Your task to perform on an android device: change the clock style Image 0: 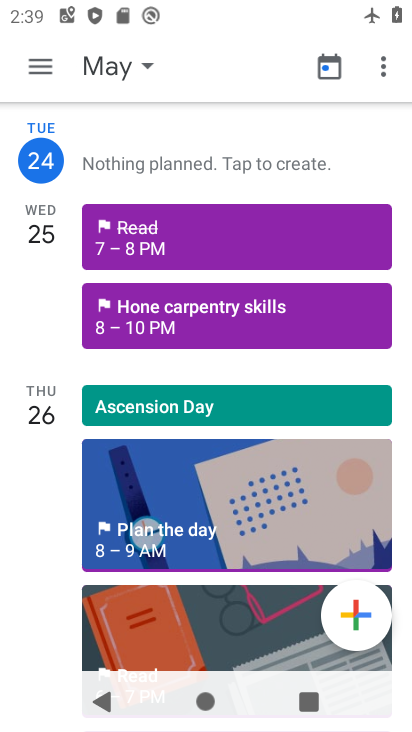
Step 0: press home button
Your task to perform on an android device: change the clock style Image 1: 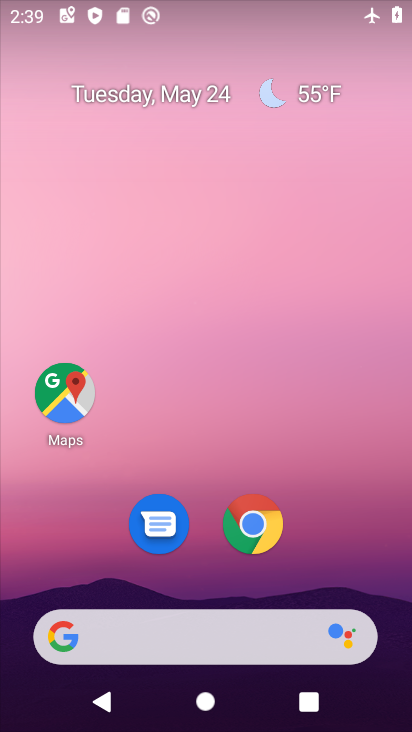
Step 1: drag from (234, 423) to (261, 65)
Your task to perform on an android device: change the clock style Image 2: 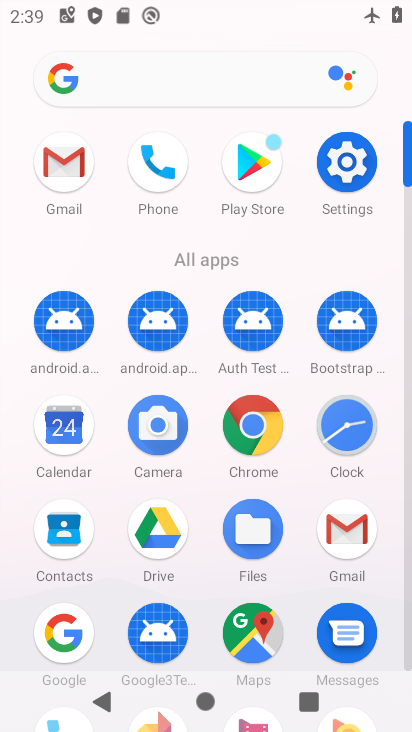
Step 2: click (339, 424)
Your task to perform on an android device: change the clock style Image 3: 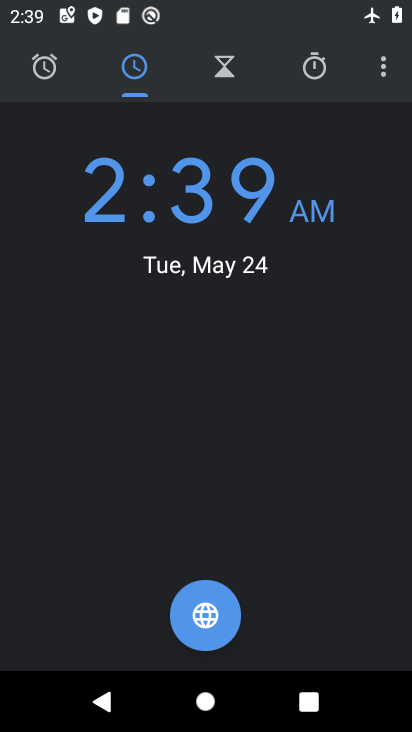
Step 3: click (378, 74)
Your task to perform on an android device: change the clock style Image 4: 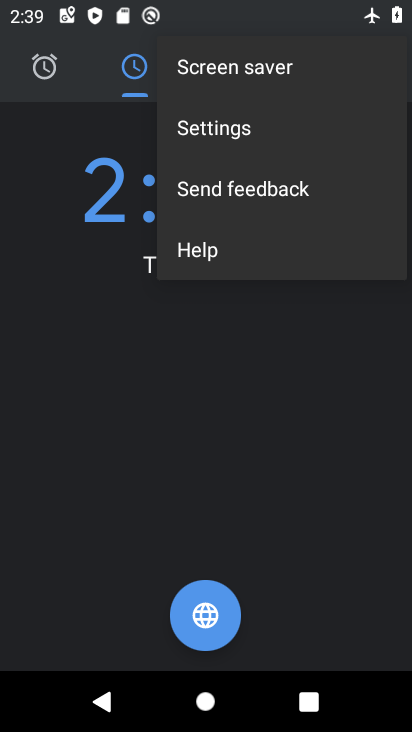
Step 4: click (300, 131)
Your task to perform on an android device: change the clock style Image 5: 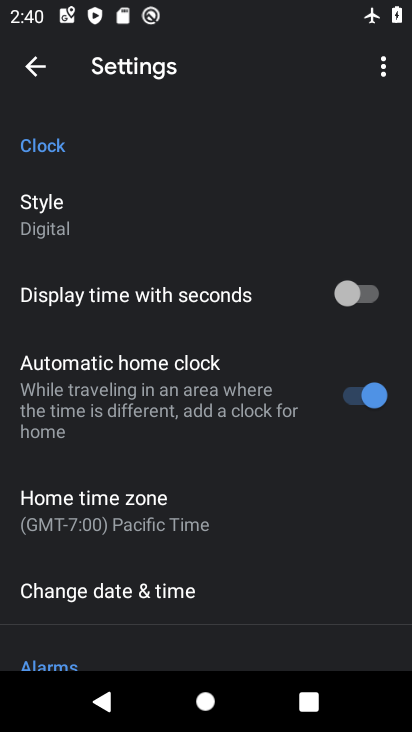
Step 5: click (83, 212)
Your task to perform on an android device: change the clock style Image 6: 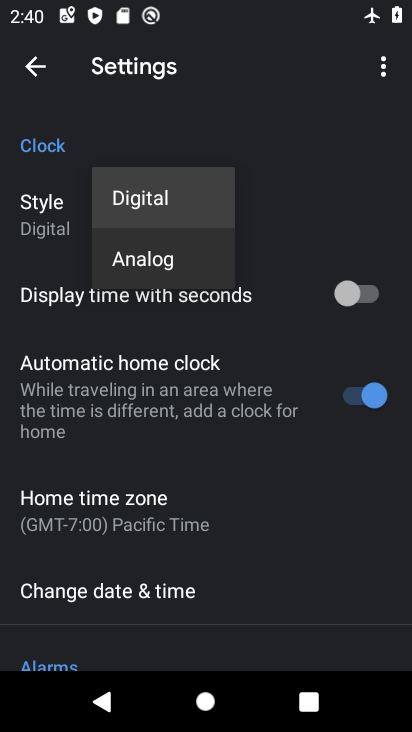
Step 6: click (118, 255)
Your task to perform on an android device: change the clock style Image 7: 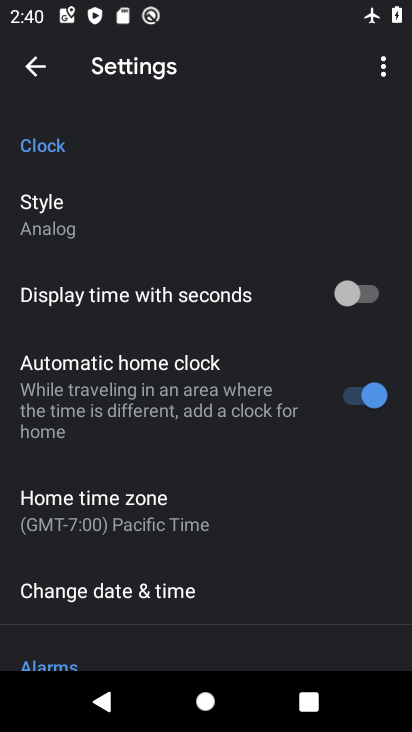
Step 7: click (26, 61)
Your task to perform on an android device: change the clock style Image 8: 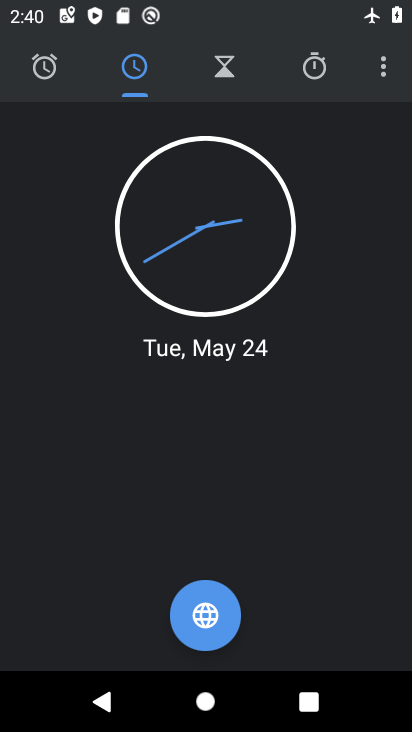
Step 8: task complete